Your task to perform on an android device: Open calendar and show me the first week of next month Image 0: 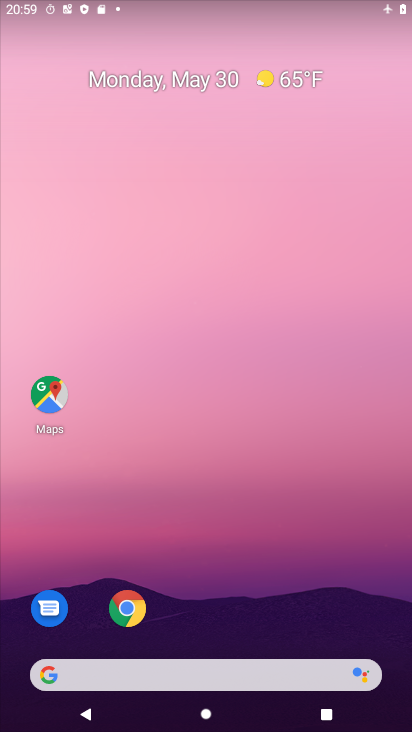
Step 0: drag from (199, 630) to (201, 147)
Your task to perform on an android device: Open calendar and show me the first week of next month Image 1: 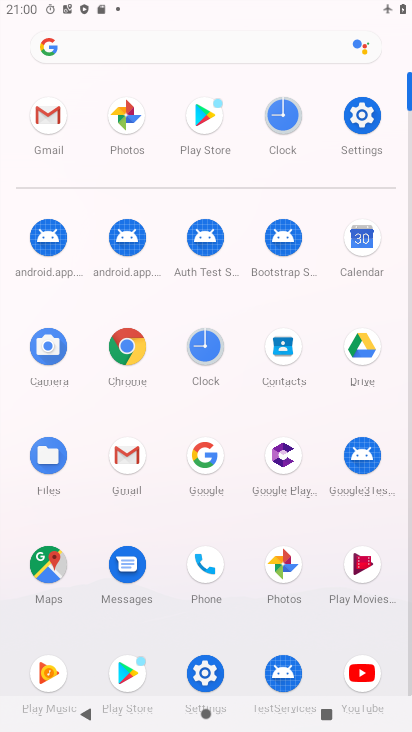
Step 1: click (350, 247)
Your task to perform on an android device: Open calendar and show me the first week of next month Image 2: 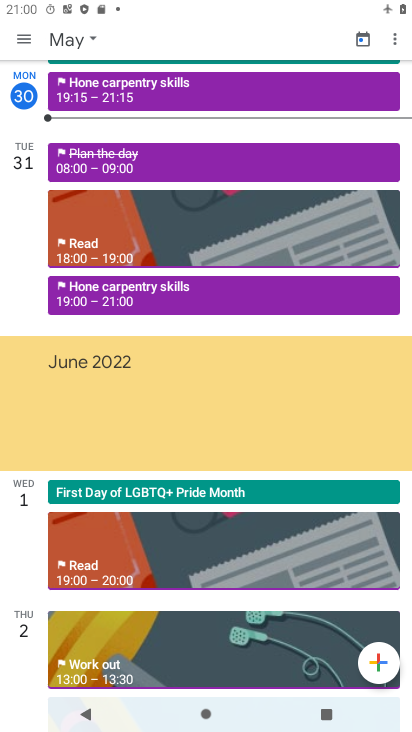
Step 2: click (85, 35)
Your task to perform on an android device: Open calendar and show me the first week of next month Image 3: 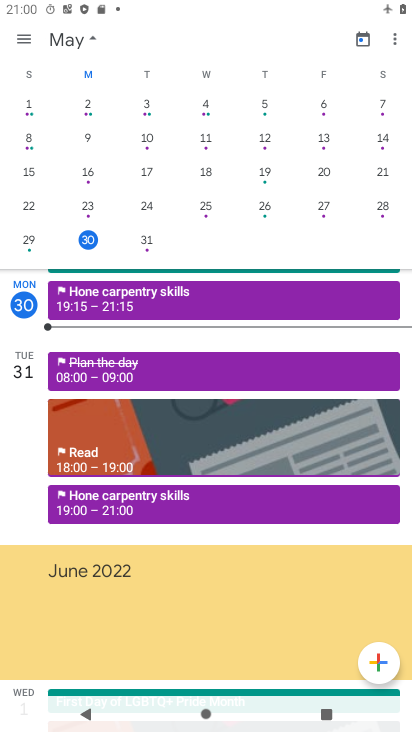
Step 3: drag from (338, 149) to (21, 95)
Your task to perform on an android device: Open calendar and show me the first week of next month Image 4: 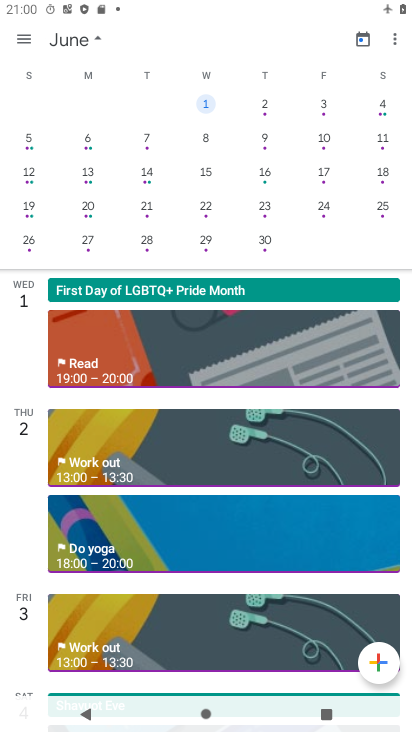
Step 4: click (200, 100)
Your task to perform on an android device: Open calendar and show me the first week of next month Image 5: 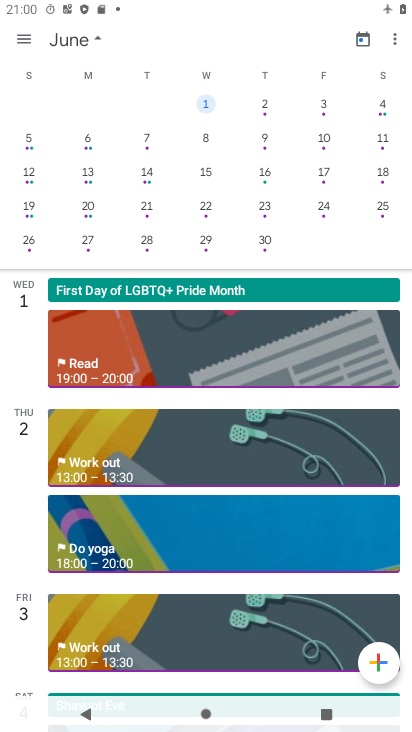
Step 5: click (202, 100)
Your task to perform on an android device: Open calendar and show me the first week of next month Image 6: 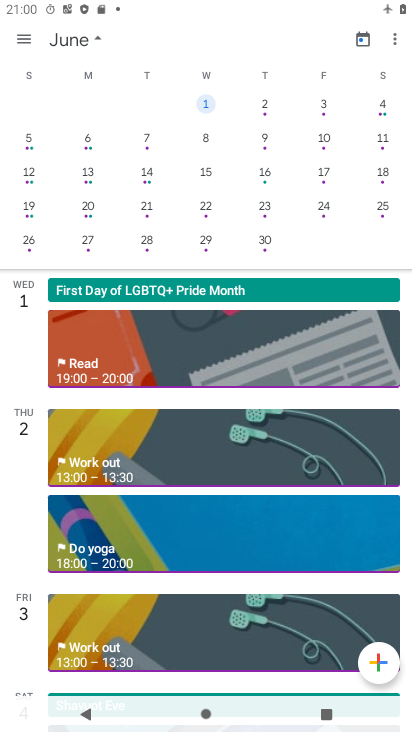
Step 6: task complete